Your task to perform on an android device: Open maps Image 0: 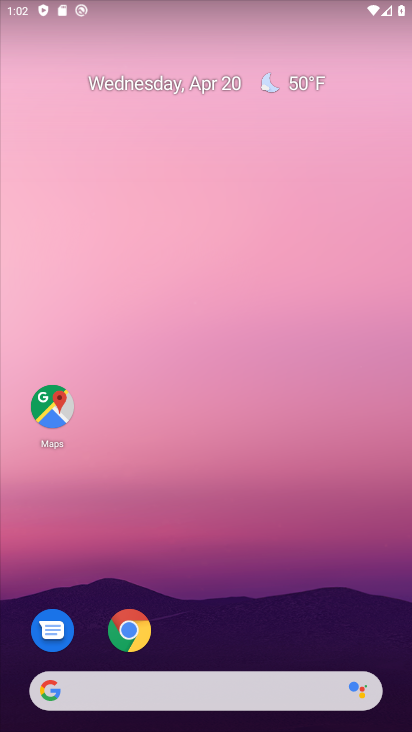
Step 0: click (54, 411)
Your task to perform on an android device: Open maps Image 1: 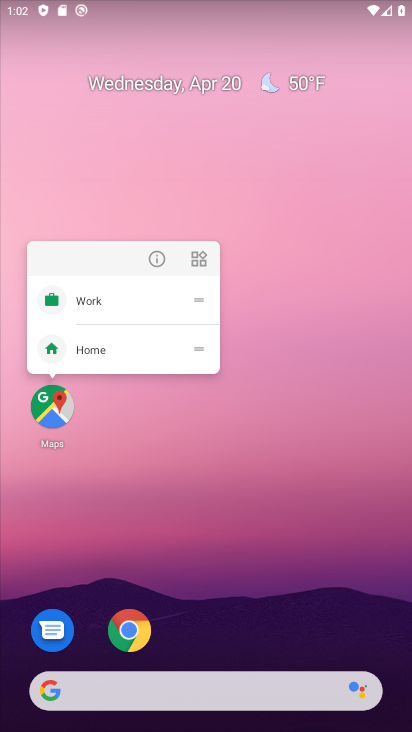
Step 1: click (126, 438)
Your task to perform on an android device: Open maps Image 2: 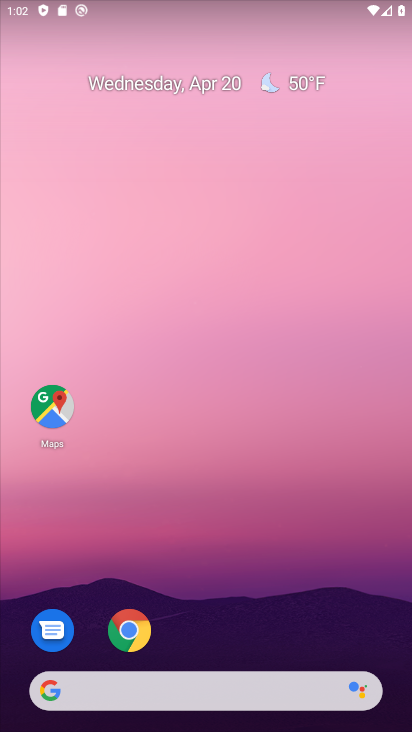
Step 2: click (50, 402)
Your task to perform on an android device: Open maps Image 3: 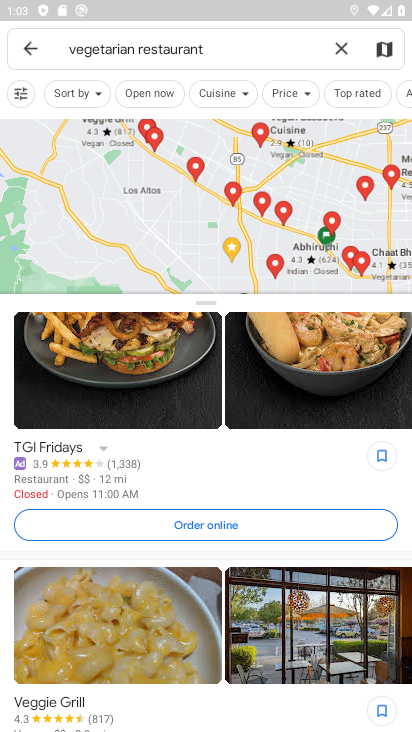
Step 3: task complete